Your task to perform on an android device: Open Yahoo.com Image 0: 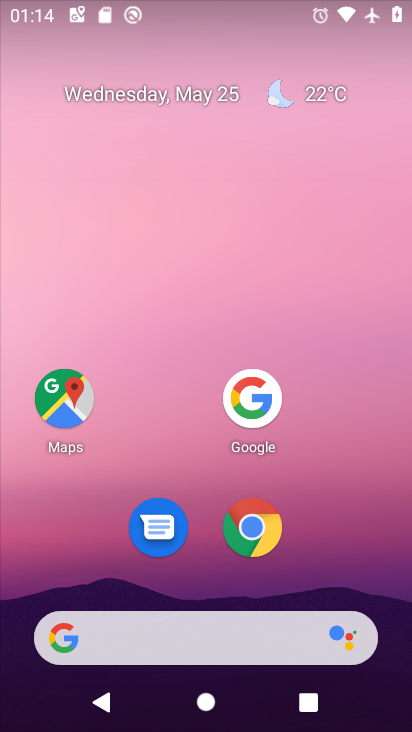
Step 0: press home button
Your task to perform on an android device: Open Yahoo.com Image 1: 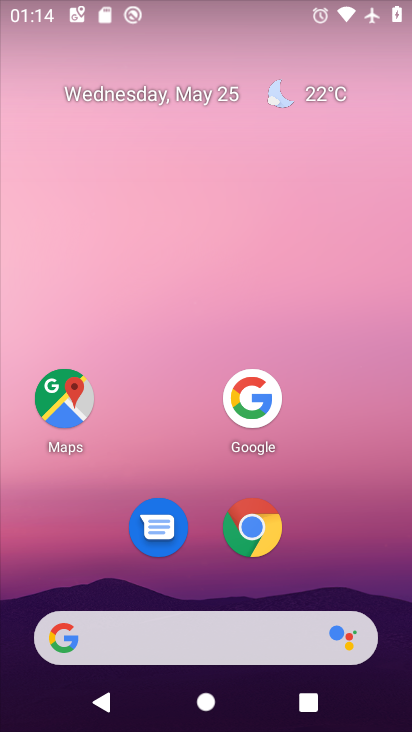
Step 1: click (278, 542)
Your task to perform on an android device: Open Yahoo.com Image 2: 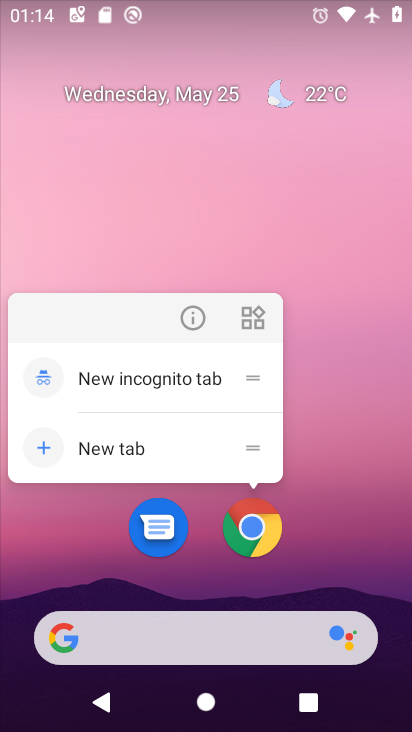
Step 2: click (249, 528)
Your task to perform on an android device: Open Yahoo.com Image 3: 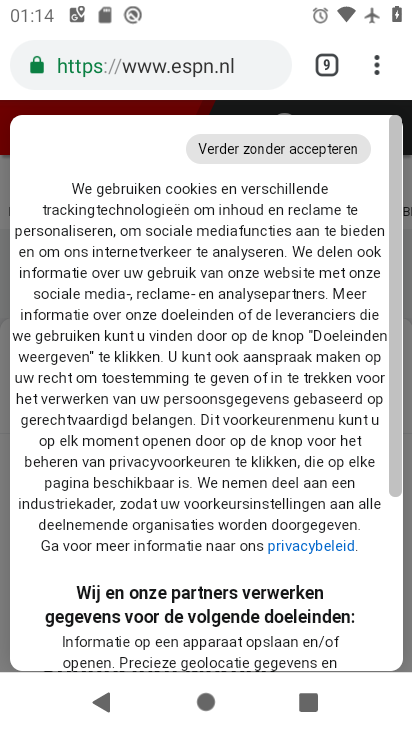
Step 3: drag from (381, 74) to (221, 128)
Your task to perform on an android device: Open Yahoo.com Image 4: 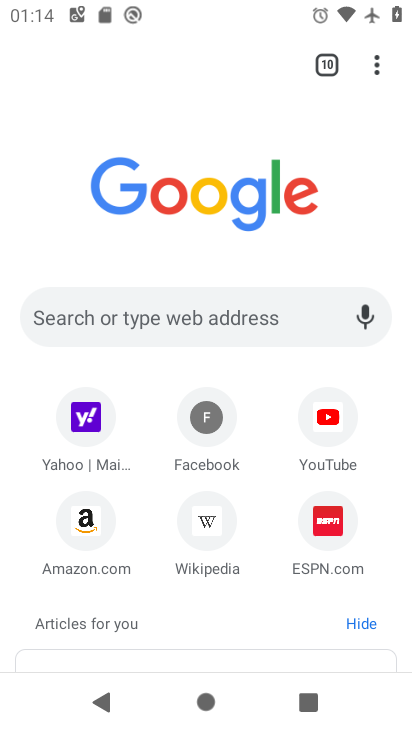
Step 4: click (91, 419)
Your task to perform on an android device: Open Yahoo.com Image 5: 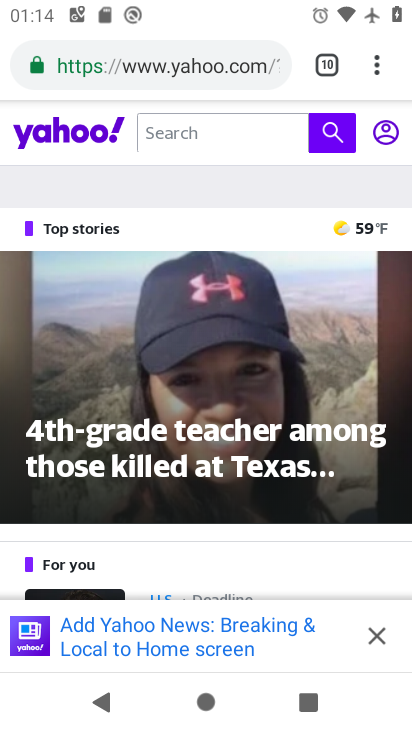
Step 5: task complete